Your task to perform on an android device: Go to location settings Image 0: 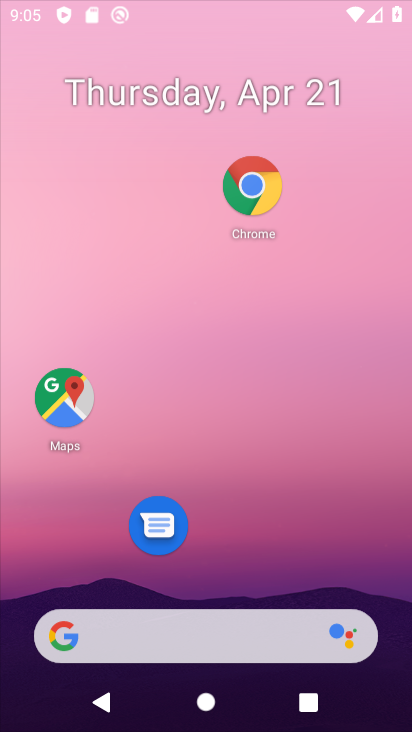
Step 0: click (96, 16)
Your task to perform on an android device: Go to location settings Image 1: 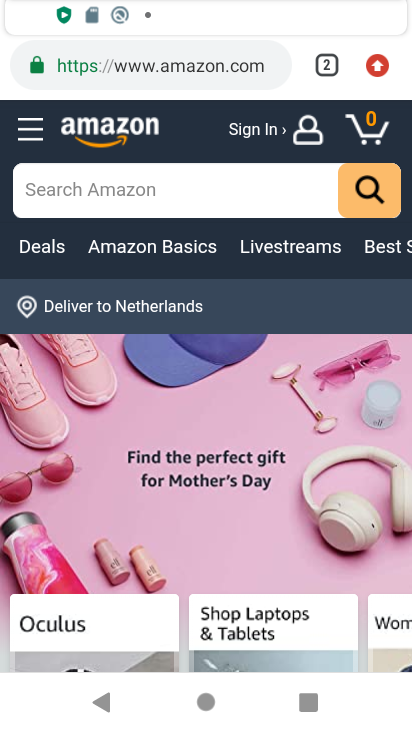
Step 1: press home button
Your task to perform on an android device: Go to location settings Image 2: 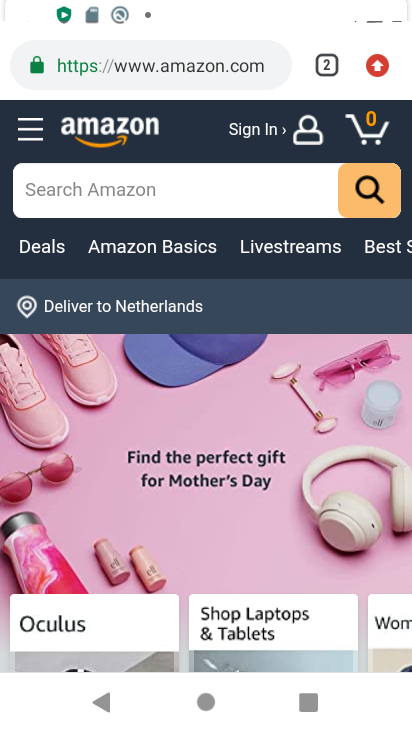
Step 2: drag from (96, 16) to (400, 478)
Your task to perform on an android device: Go to location settings Image 3: 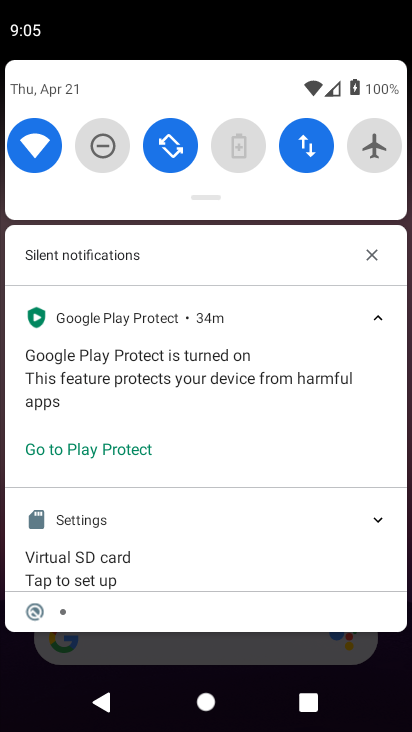
Step 3: press home button
Your task to perform on an android device: Go to location settings Image 4: 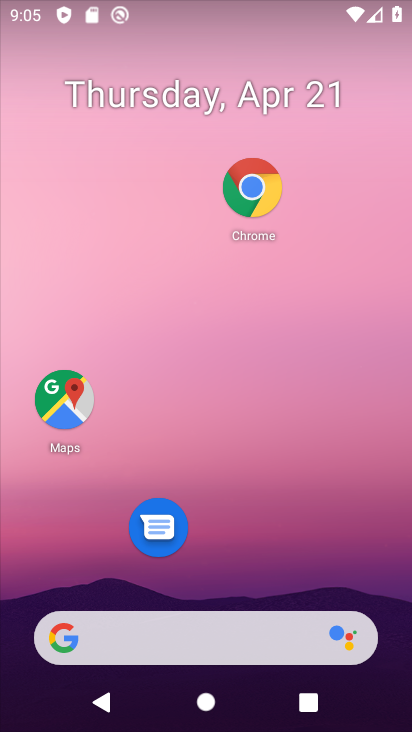
Step 4: drag from (201, 666) to (195, 125)
Your task to perform on an android device: Go to location settings Image 5: 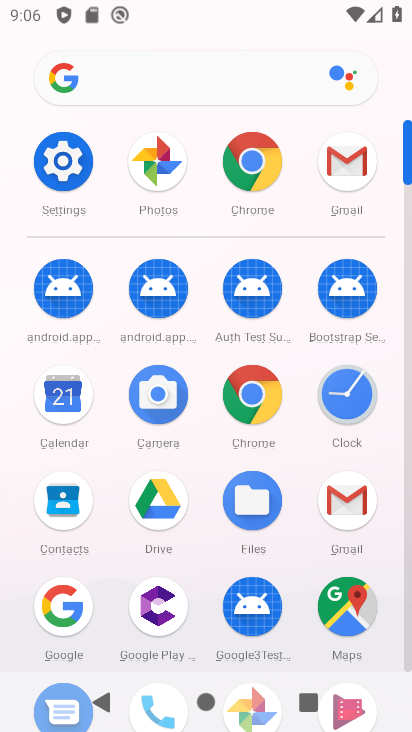
Step 5: click (87, 181)
Your task to perform on an android device: Go to location settings Image 6: 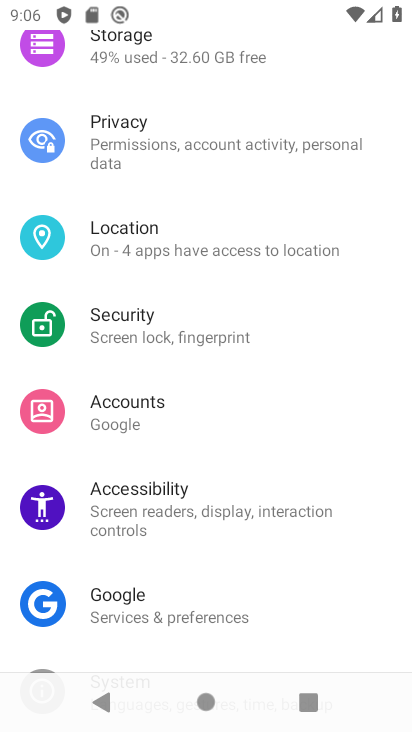
Step 6: click (88, 228)
Your task to perform on an android device: Go to location settings Image 7: 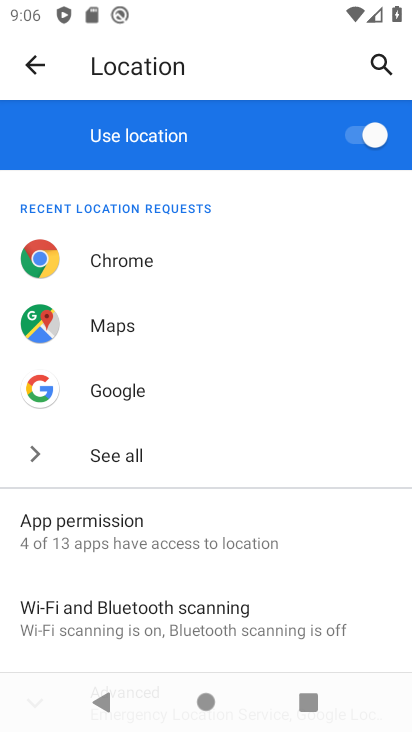
Step 7: task complete